Your task to perform on an android device: Show me popular games on the Play Store Image 0: 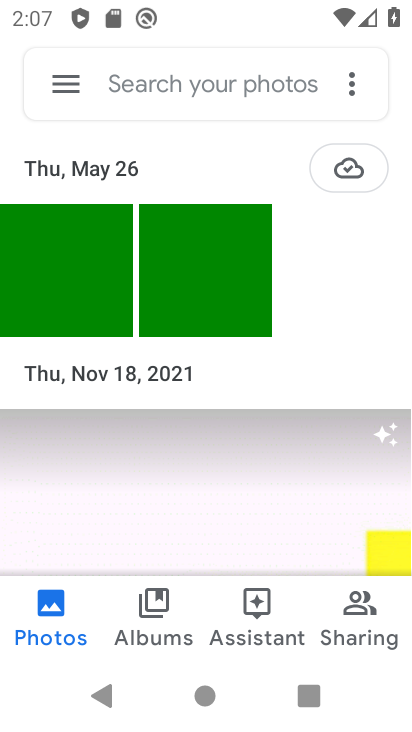
Step 0: press home button
Your task to perform on an android device: Show me popular games on the Play Store Image 1: 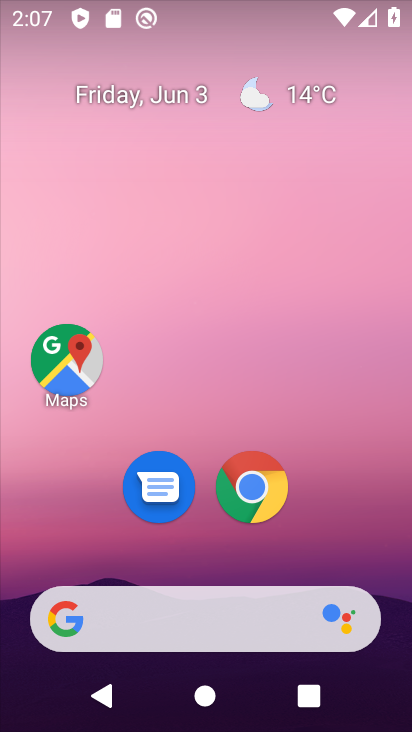
Step 1: drag from (350, 503) to (221, 28)
Your task to perform on an android device: Show me popular games on the Play Store Image 2: 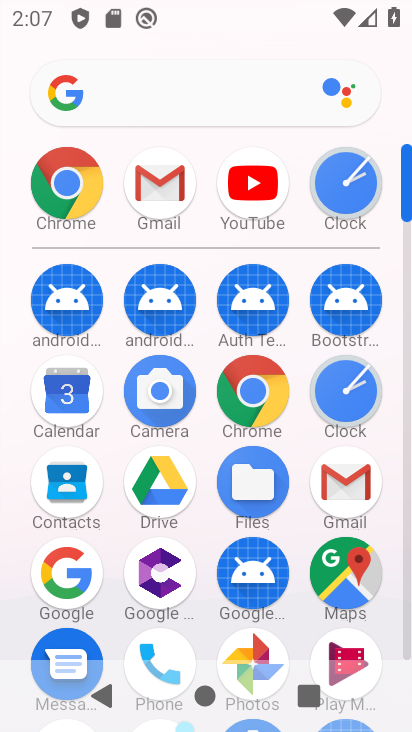
Step 2: drag from (200, 611) to (204, 213)
Your task to perform on an android device: Show me popular games on the Play Store Image 3: 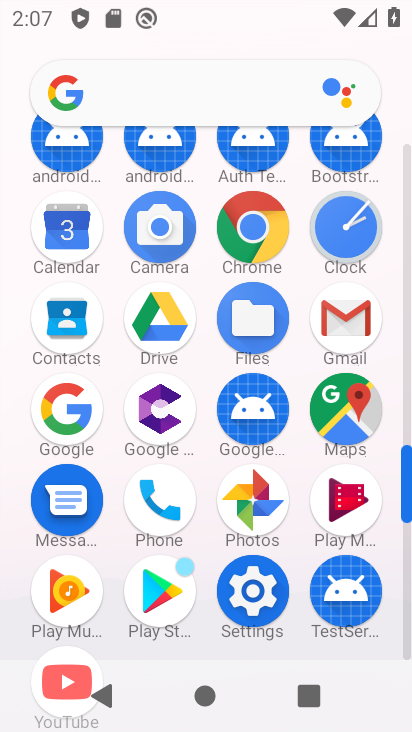
Step 3: click (172, 597)
Your task to perform on an android device: Show me popular games on the Play Store Image 4: 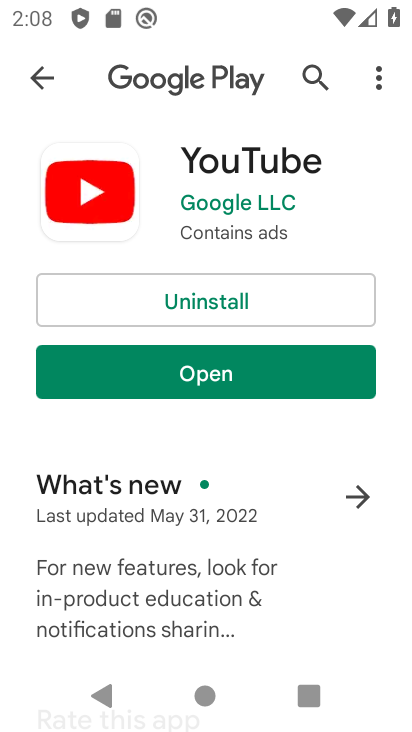
Step 4: click (31, 70)
Your task to perform on an android device: Show me popular games on the Play Store Image 5: 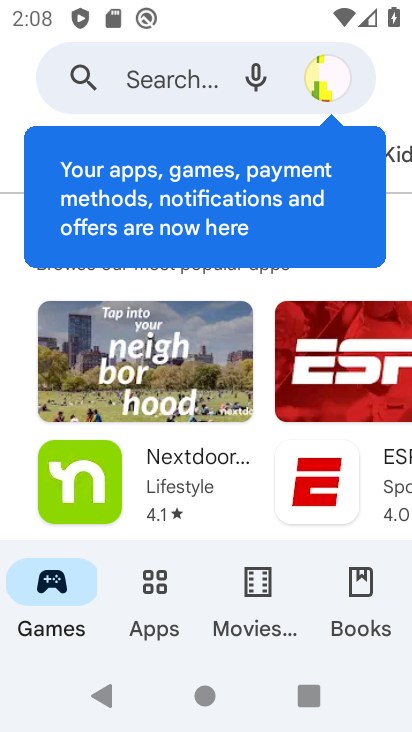
Step 5: click (19, 288)
Your task to perform on an android device: Show me popular games on the Play Store Image 6: 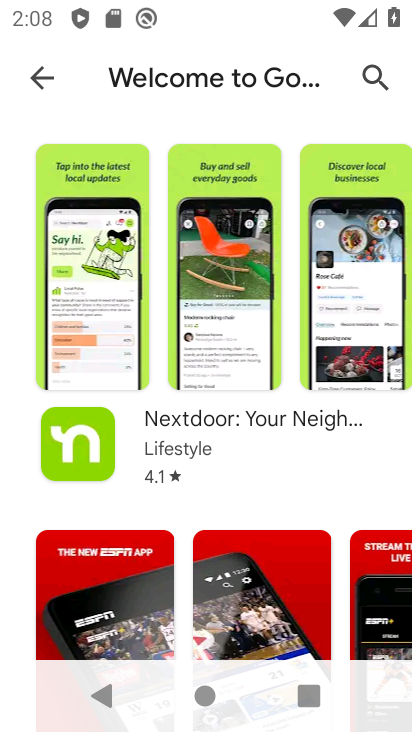
Step 6: click (44, 71)
Your task to perform on an android device: Show me popular games on the Play Store Image 7: 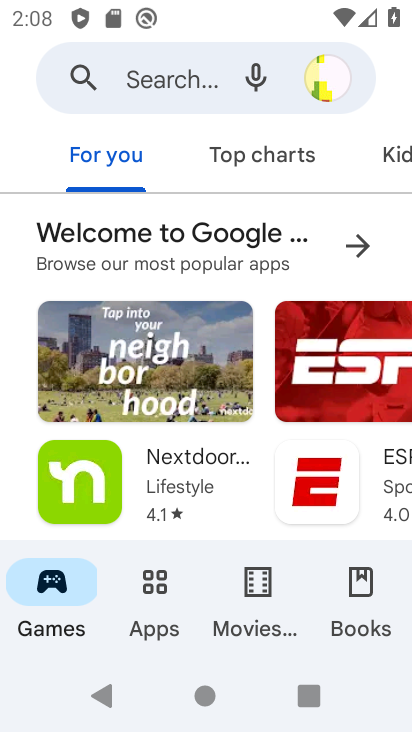
Step 7: click (253, 155)
Your task to perform on an android device: Show me popular games on the Play Store Image 8: 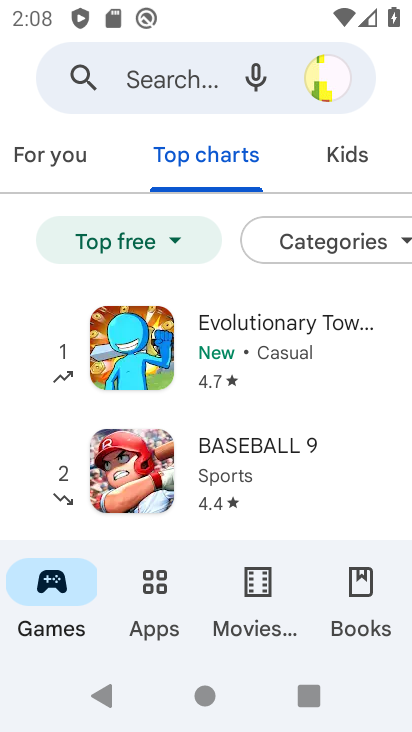
Step 8: task complete